Your task to perform on an android device: turn on the 24-hour format for clock Image 0: 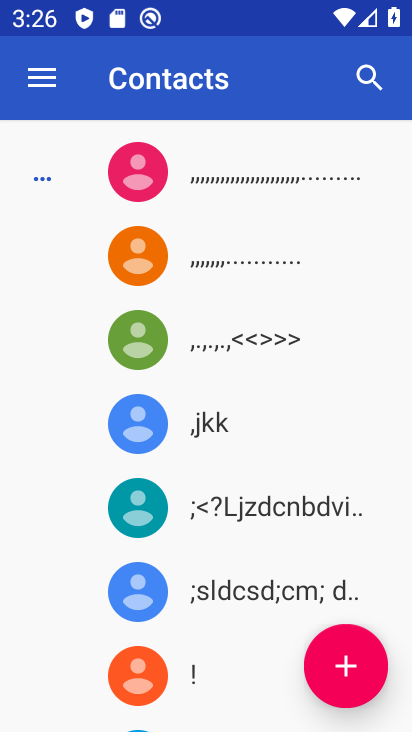
Step 0: press home button
Your task to perform on an android device: turn on the 24-hour format for clock Image 1: 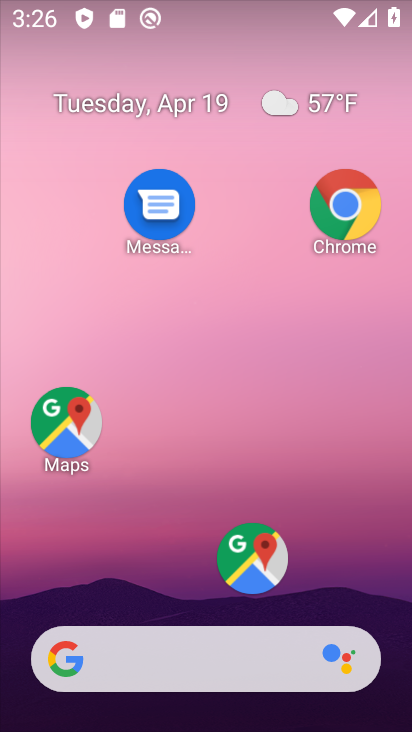
Step 1: drag from (161, 552) to (222, 178)
Your task to perform on an android device: turn on the 24-hour format for clock Image 2: 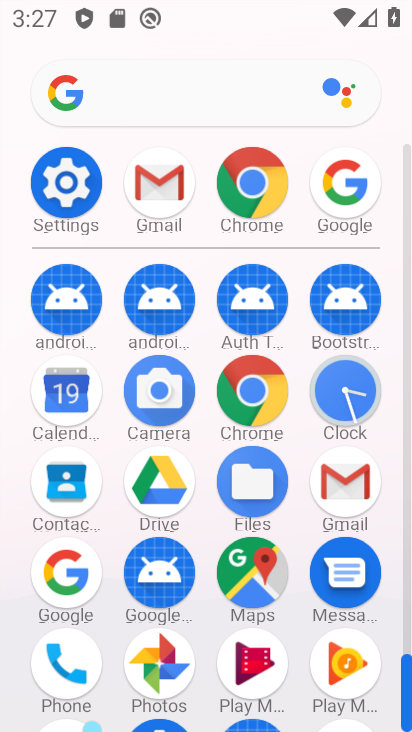
Step 2: drag from (215, 655) to (316, 320)
Your task to perform on an android device: turn on the 24-hour format for clock Image 3: 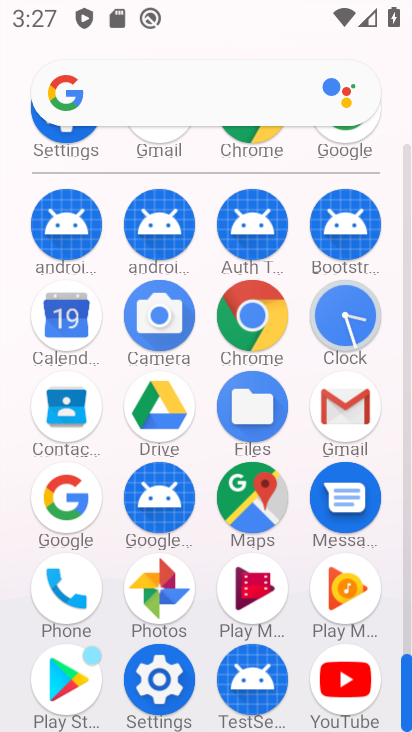
Step 3: click (356, 324)
Your task to perform on an android device: turn on the 24-hour format for clock Image 4: 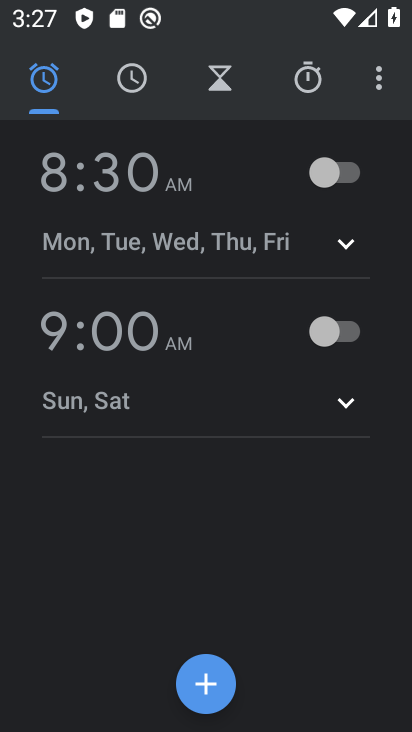
Step 4: click (377, 85)
Your task to perform on an android device: turn on the 24-hour format for clock Image 5: 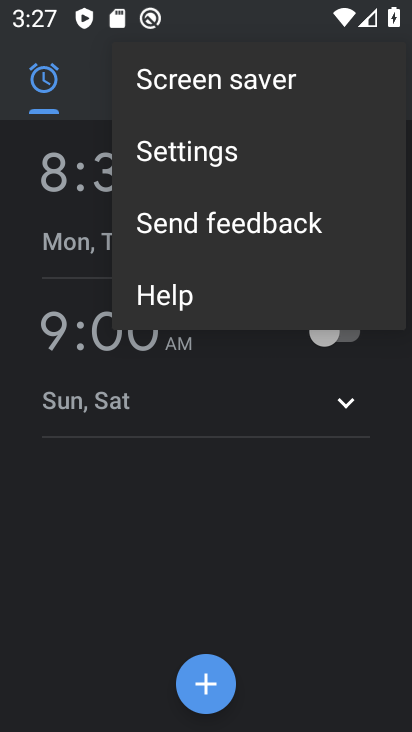
Step 5: click (224, 165)
Your task to perform on an android device: turn on the 24-hour format for clock Image 6: 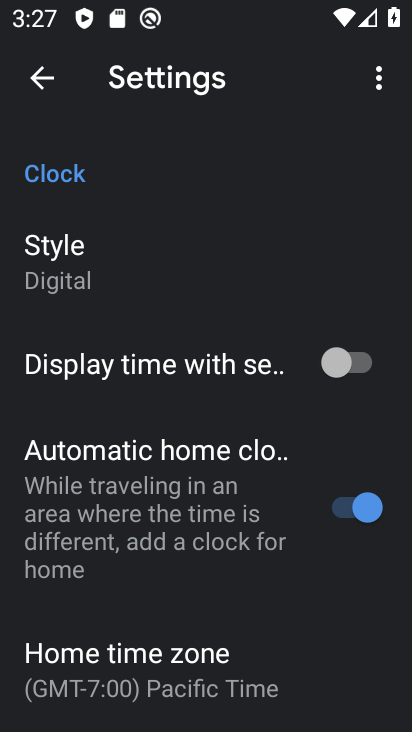
Step 6: drag from (123, 573) to (210, 229)
Your task to perform on an android device: turn on the 24-hour format for clock Image 7: 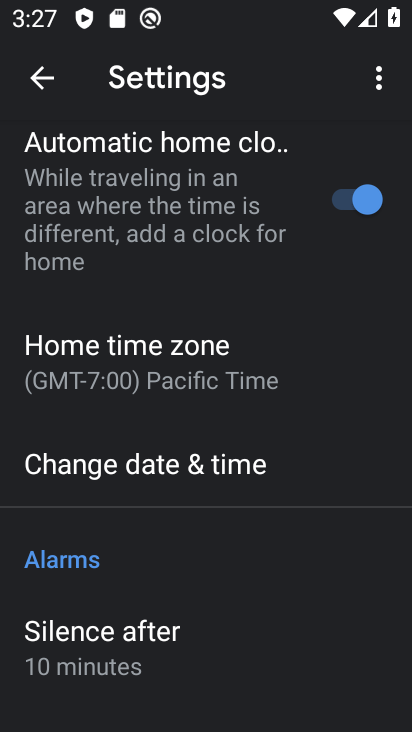
Step 7: click (102, 473)
Your task to perform on an android device: turn on the 24-hour format for clock Image 8: 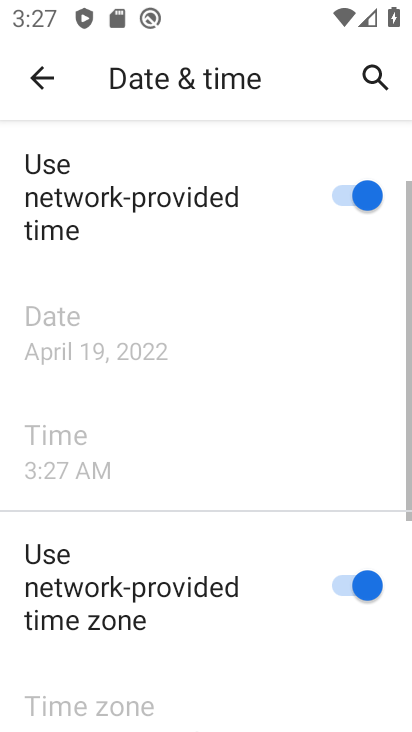
Step 8: drag from (160, 568) to (244, 223)
Your task to perform on an android device: turn on the 24-hour format for clock Image 9: 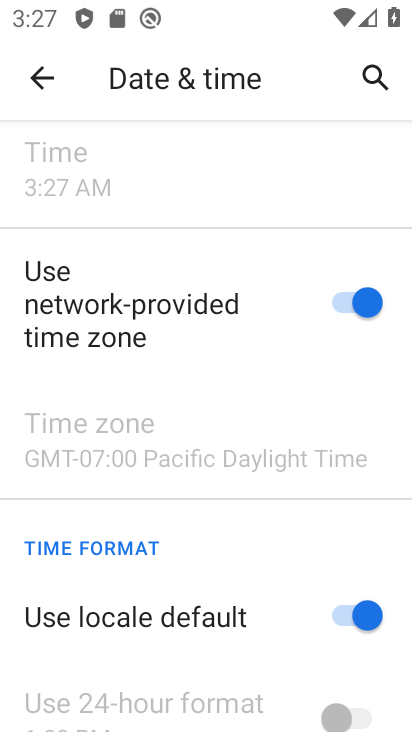
Step 9: click (349, 623)
Your task to perform on an android device: turn on the 24-hour format for clock Image 10: 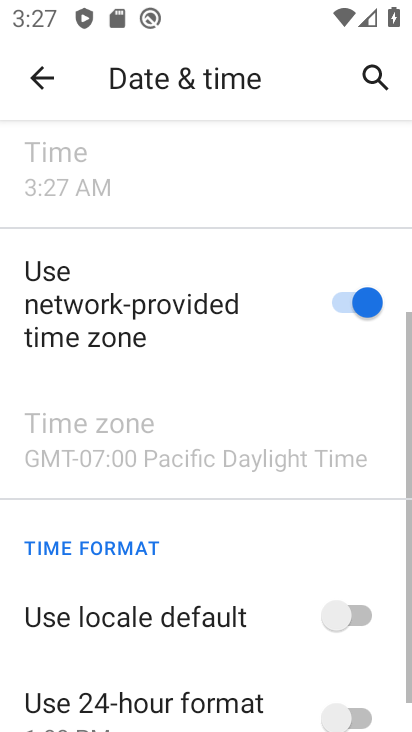
Step 10: click (351, 712)
Your task to perform on an android device: turn on the 24-hour format for clock Image 11: 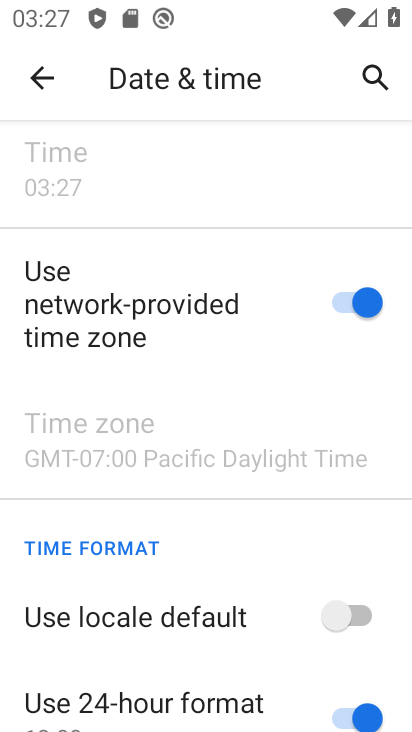
Step 11: task complete